Your task to perform on an android device: stop showing notifications on the lock screen Image 0: 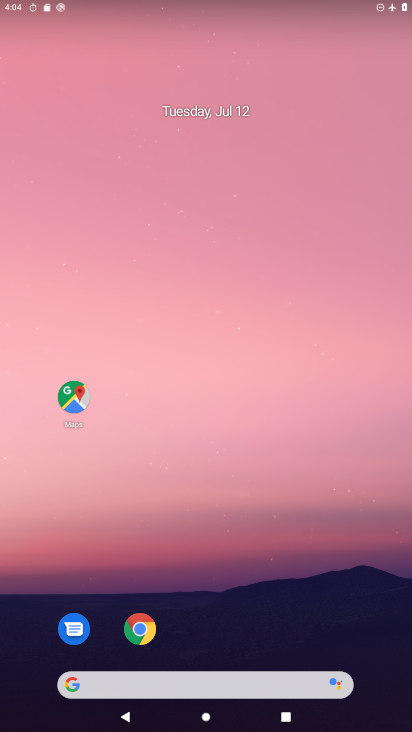
Step 0: drag from (382, 506) to (366, 228)
Your task to perform on an android device: stop showing notifications on the lock screen Image 1: 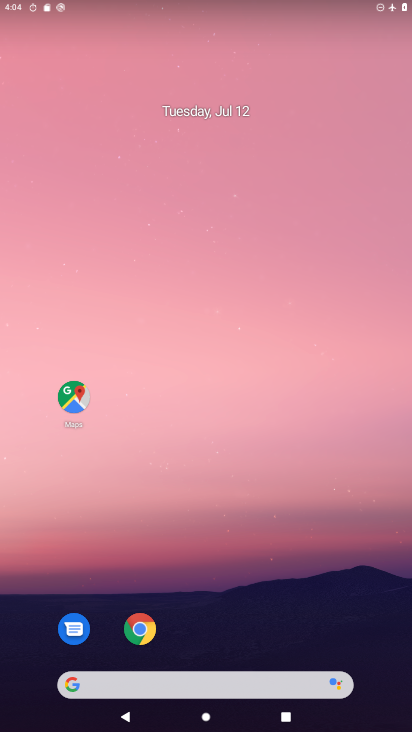
Step 1: drag from (332, 602) to (379, 36)
Your task to perform on an android device: stop showing notifications on the lock screen Image 2: 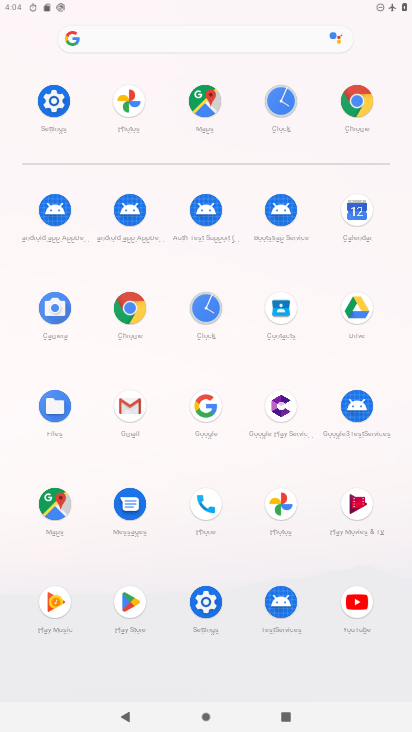
Step 2: click (196, 604)
Your task to perform on an android device: stop showing notifications on the lock screen Image 3: 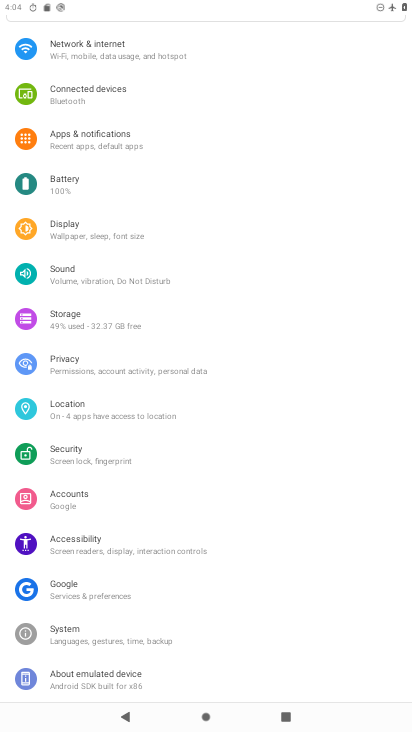
Step 3: click (126, 152)
Your task to perform on an android device: stop showing notifications on the lock screen Image 4: 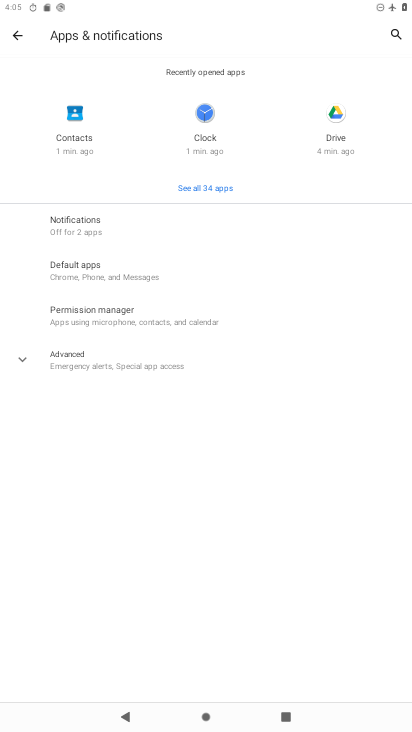
Step 4: click (75, 222)
Your task to perform on an android device: stop showing notifications on the lock screen Image 5: 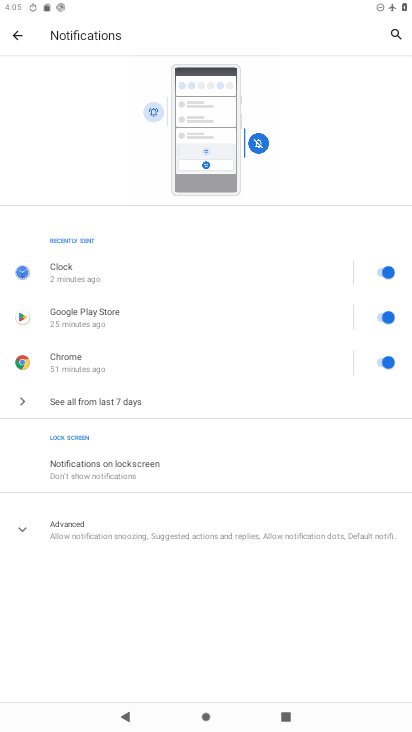
Step 5: click (92, 478)
Your task to perform on an android device: stop showing notifications on the lock screen Image 6: 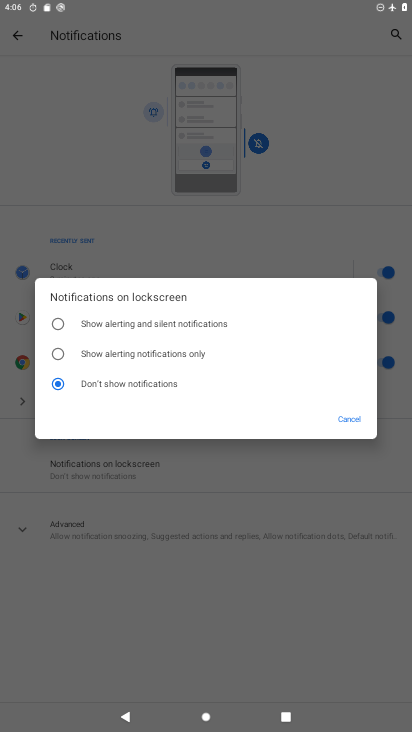
Step 6: click (102, 349)
Your task to perform on an android device: stop showing notifications on the lock screen Image 7: 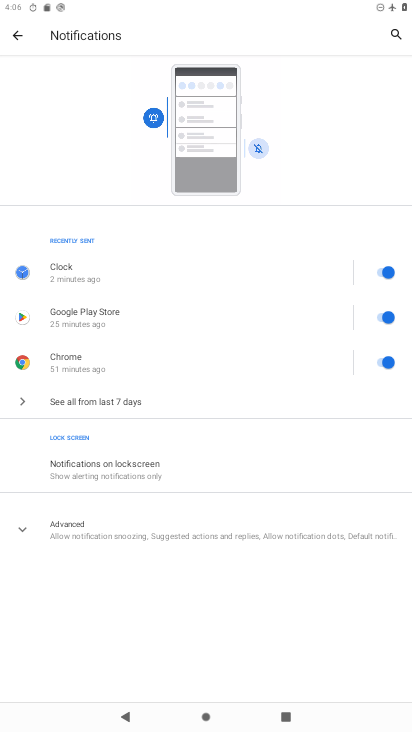
Step 7: task complete